Your task to perform on an android device: install app "PUBG MOBILE" Image 0: 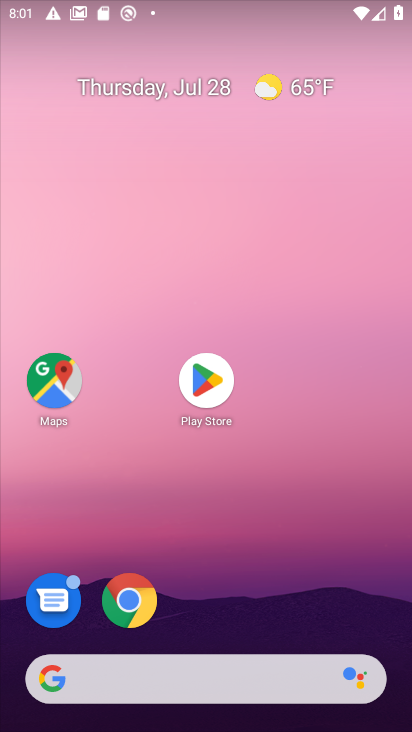
Step 0: press home button
Your task to perform on an android device: install app "PUBG MOBILE" Image 1: 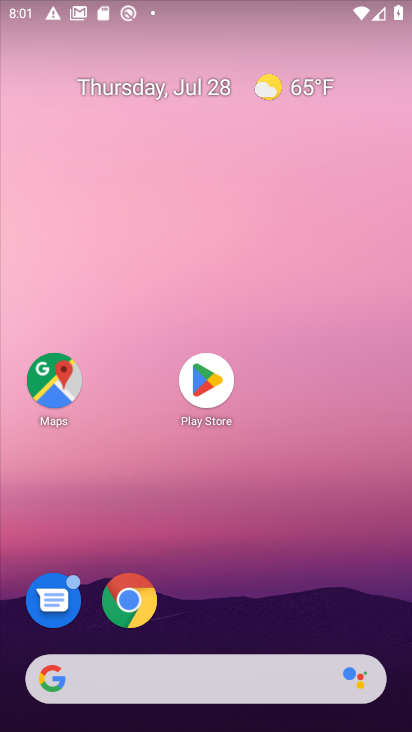
Step 1: drag from (249, 564) to (306, 62)
Your task to perform on an android device: install app "PUBG MOBILE" Image 2: 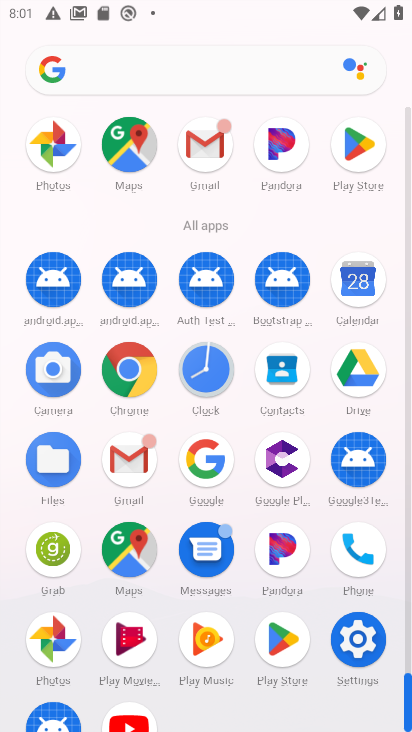
Step 2: click (288, 645)
Your task to perform on an android device: install app "PUBG MOBILE" Image 3: 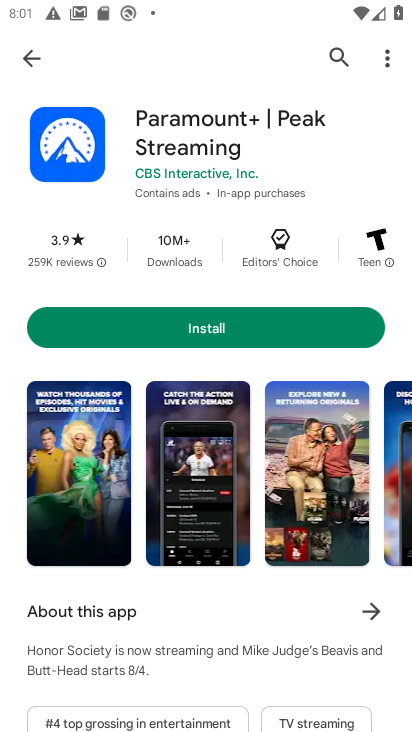
Step 3: click (31, 57)
Your task to perform on an android device: install app "PUBG MOBILE" Image 4: 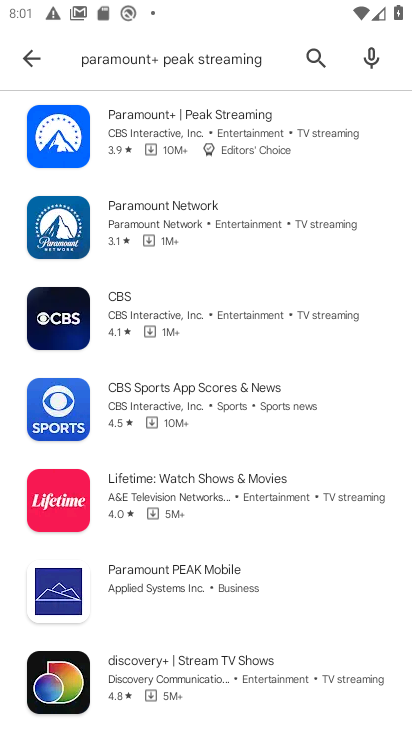
Step 4: click (311, 54)
Your task to perform on an android device: install app "PUBG MOBILE" Image 5: 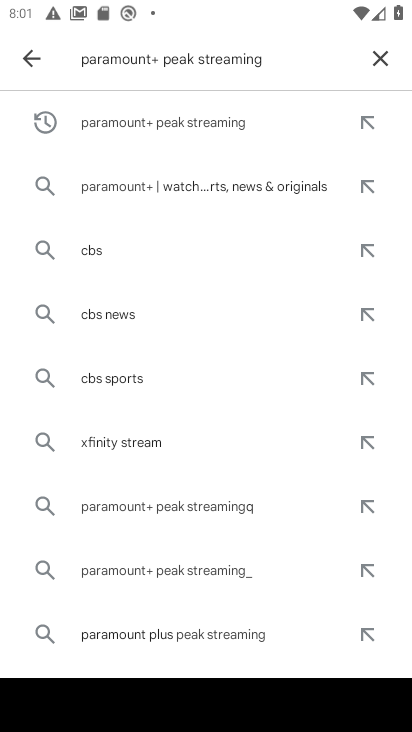
Step 5: click (376, 55)
Your task to perform on an android device: install app "PUBG MOBILE" Image 6: 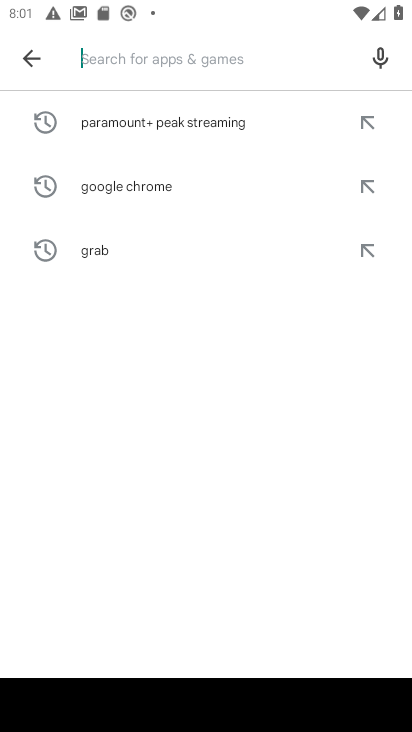
Step 6: type "PUBG MOBILE"
Your task to perform on an android device: install app "PUBG MOBILE" Image 7: 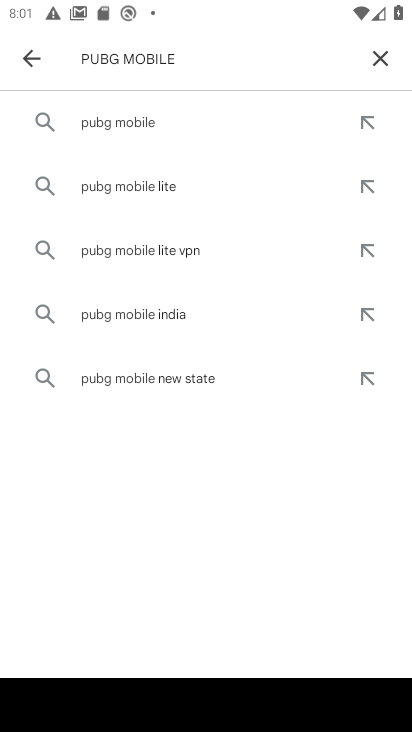
Step 7: click (143, 119)
Your task to perform on an android device: install app "PUBG MOBILE" Image 8: 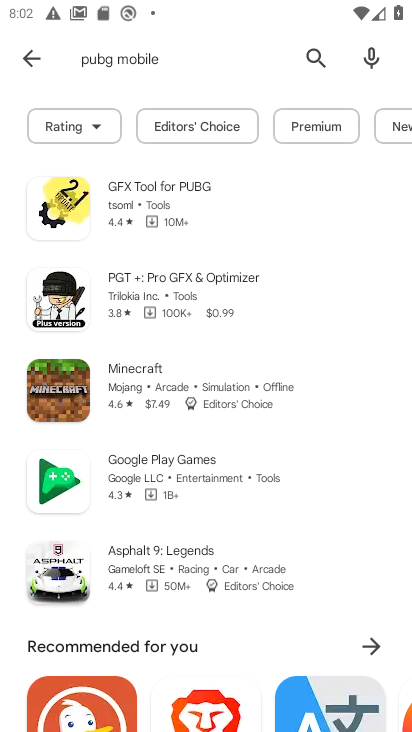
Step 8: click (201, 192)
Your task to perform on an android device: install app "PUBG MOBILE" Image 9: 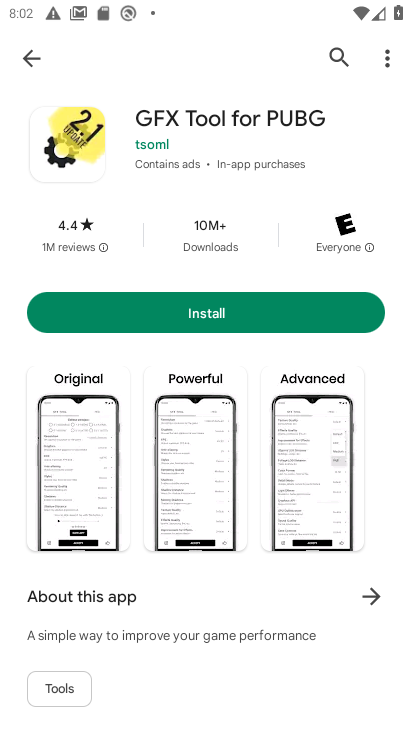
Step 9: click (220, 316)
Your task to perform on an android device: install app "PUBG MOBILE" Image 10: 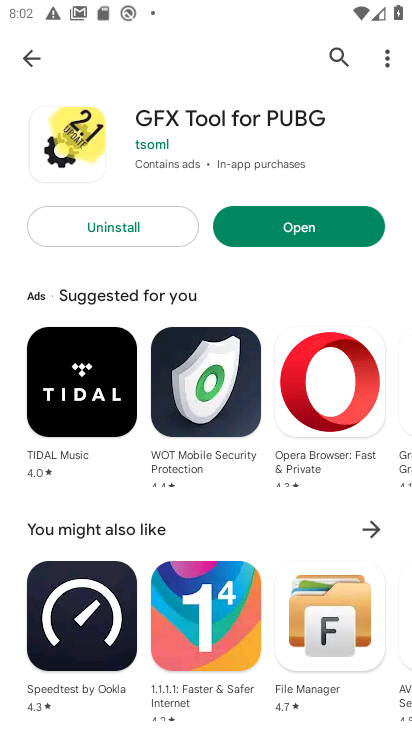
Step 10: task complete